Your task to perform on an android device: turn off sleep mode Image 0: 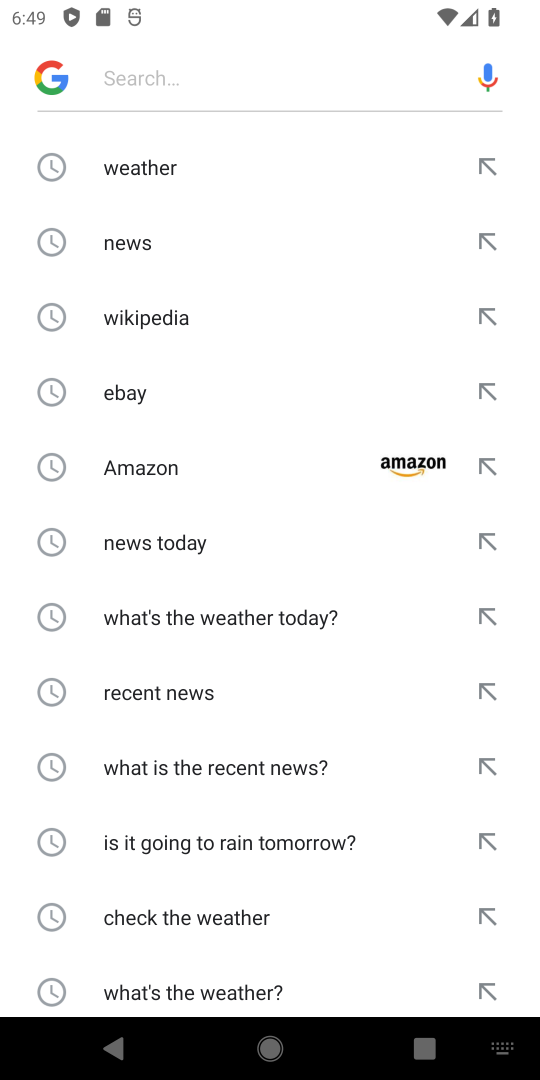
Step 0: press back button
Your task to perform on an android device: turn off sleep mode Image 1: 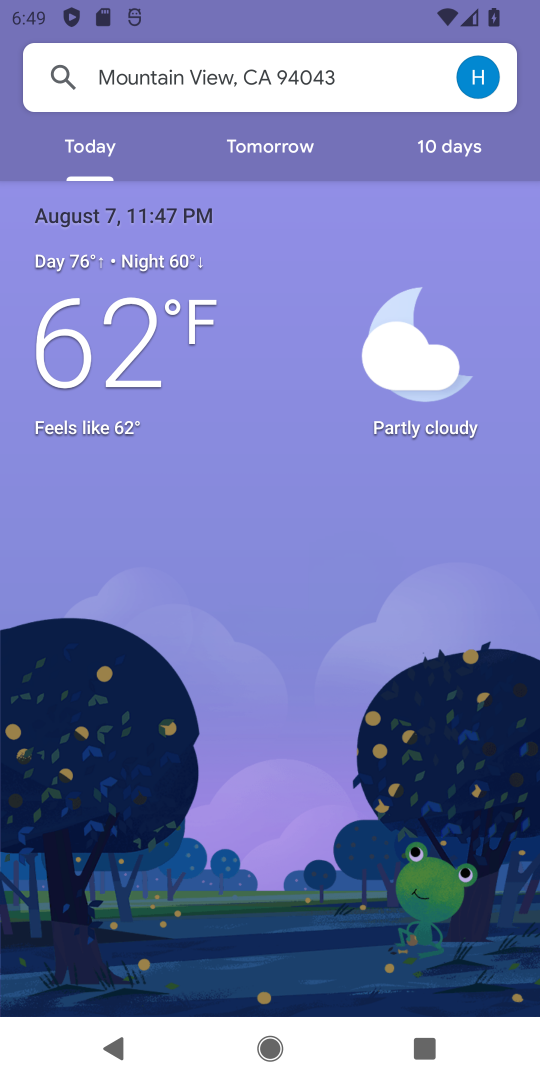
Step 1: press back button
Your task to perform on an android device: turn off sleep mode Image 2: 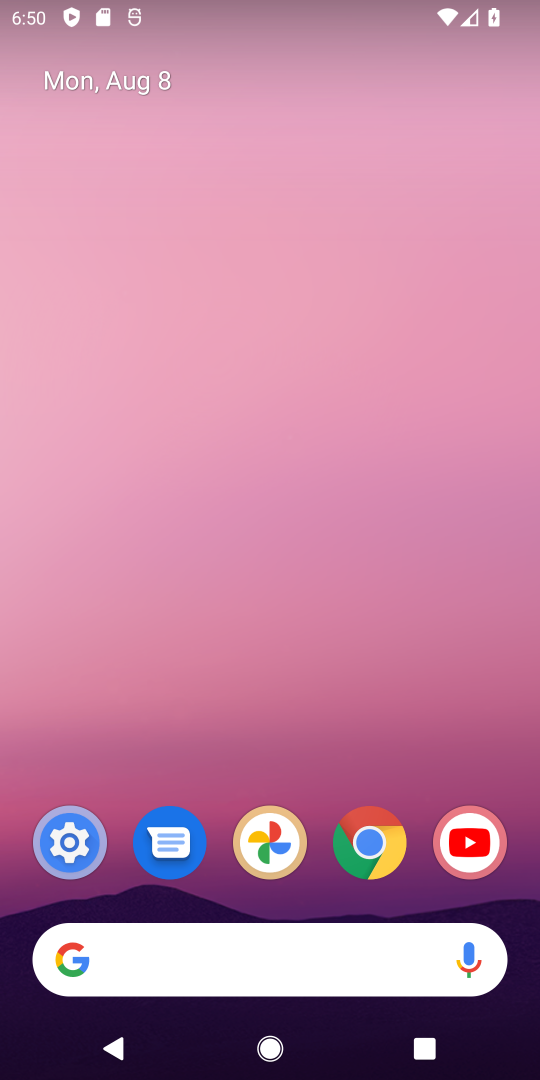
Step 2: drag from (259, 932) to (257, 0)
Your task to perform on an android device: turn off sleep mode Image 3: 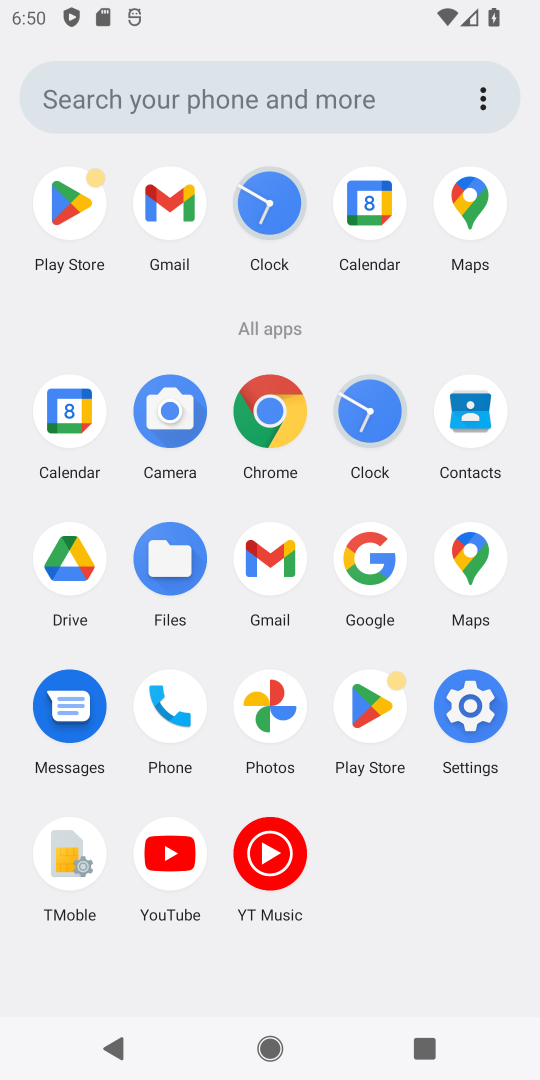
Step 3: click (475, 727)
Your task to perform on an android device: turn off sleep mode Image 4: 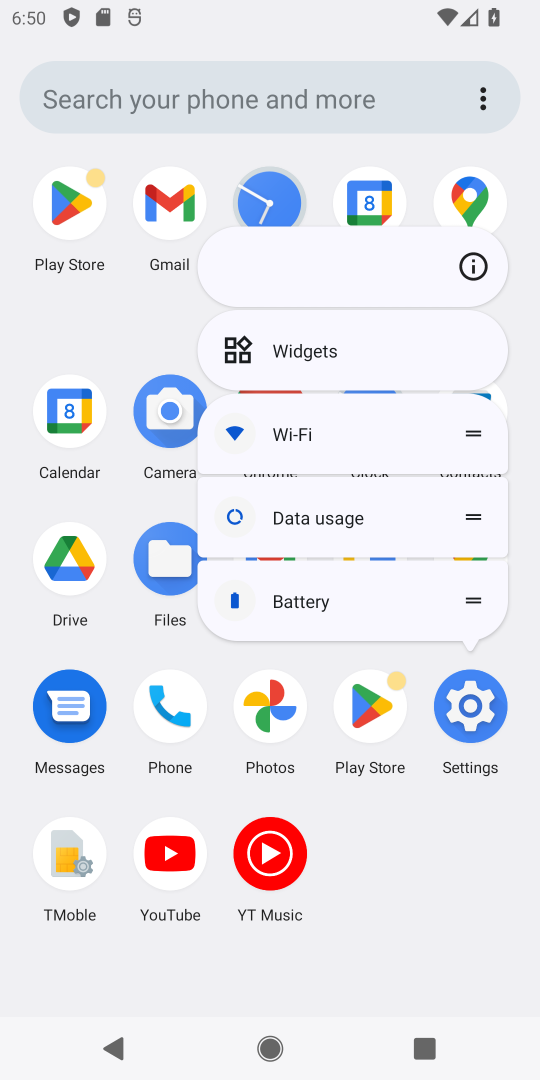
Step 4: click (480, 709)
Your task to perform on an android device: turn off sleep mode Image 5: 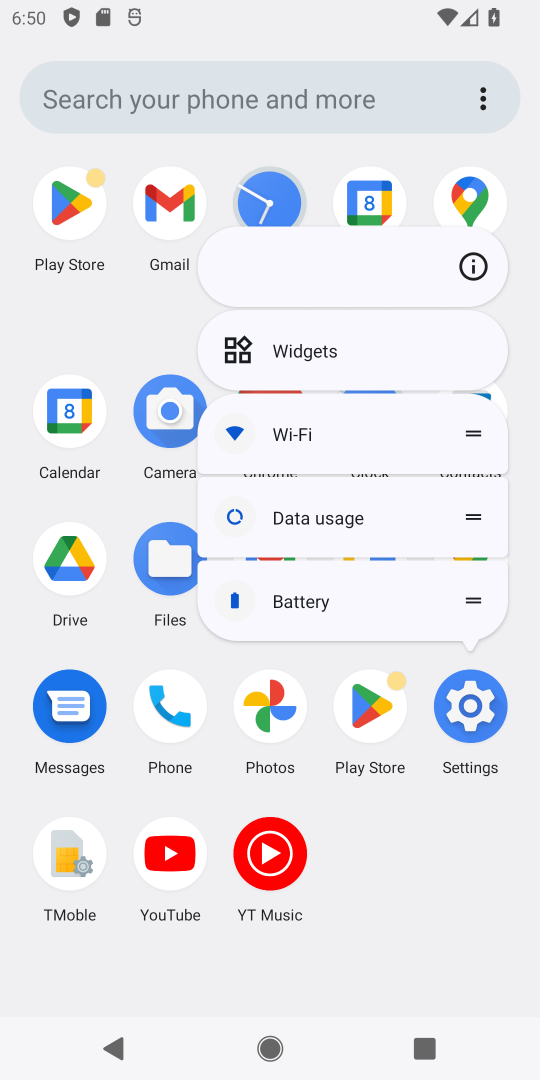
Step 5: click (495, 694)
Your task to perform on an android device: turn off sleep mode Image 6: 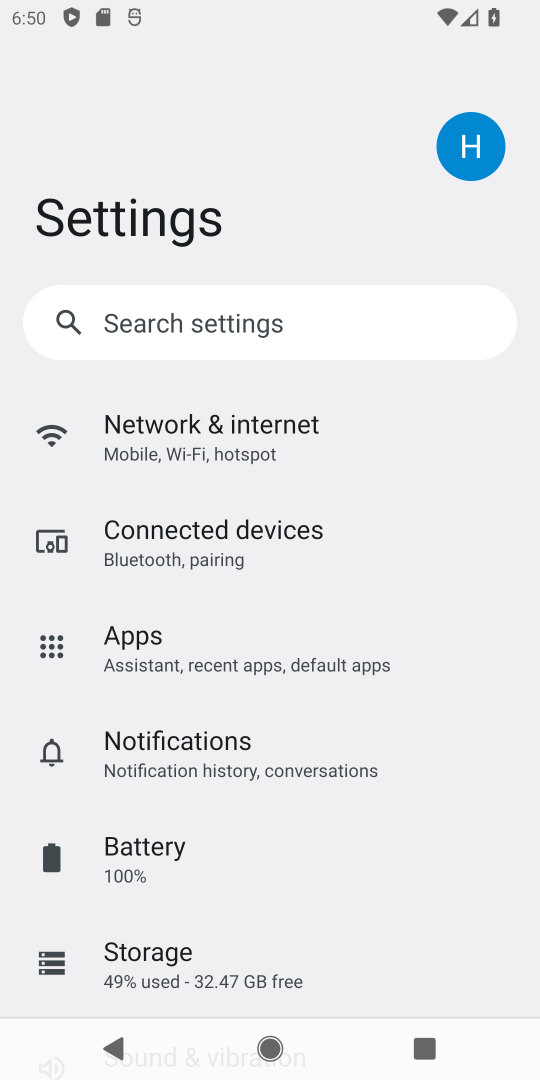
Step 6: drag from (215, 881) to (208, 369)
Your task to perform on an android device: turn off sleep mode Image 7: 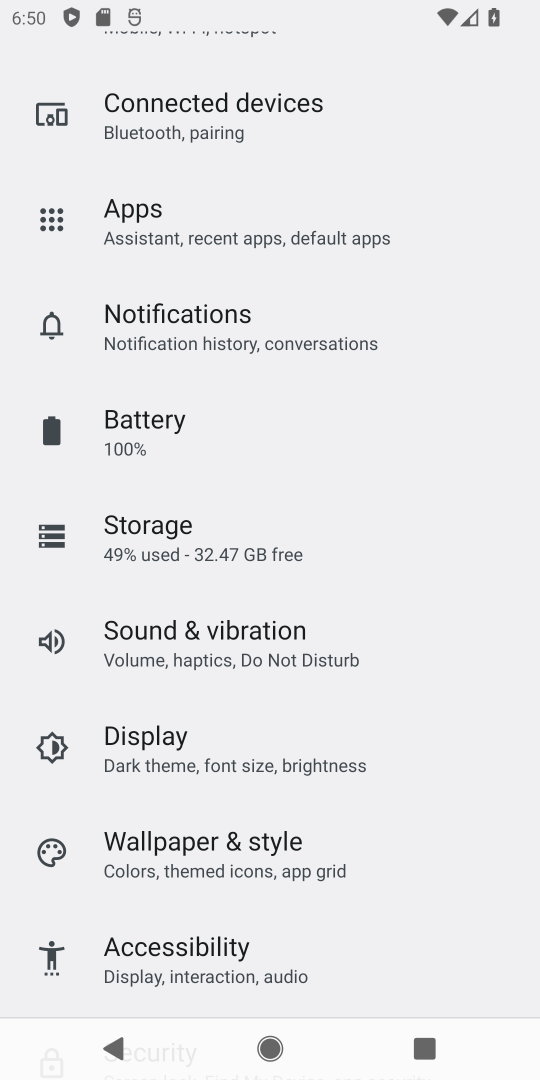
Step 7: click (190, 752)
Your task to perform on an android device: turn off sleep mode Image 8: 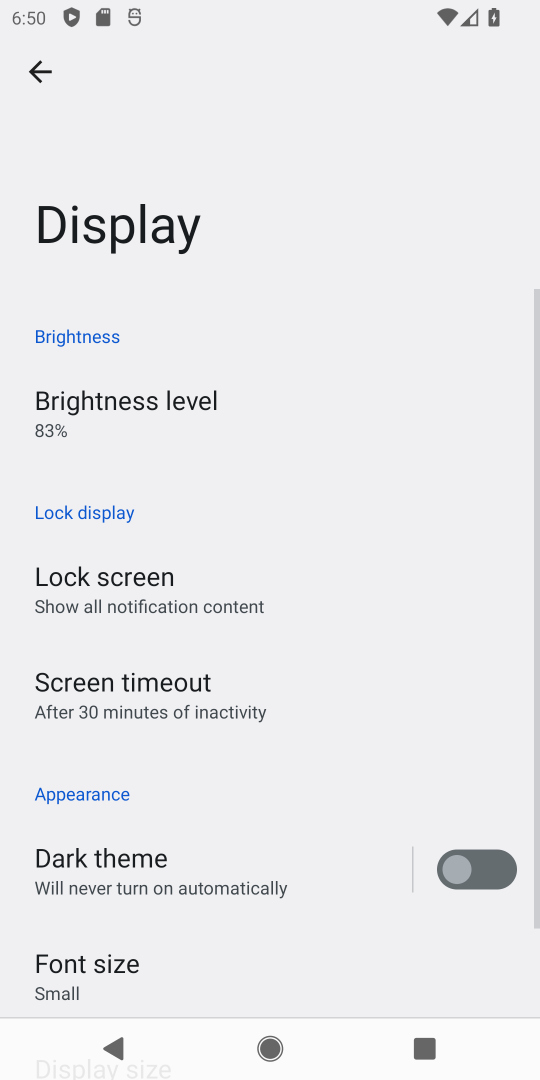
Step 8: task complete